Your task to perform on an android device: turn on location history Image 0: 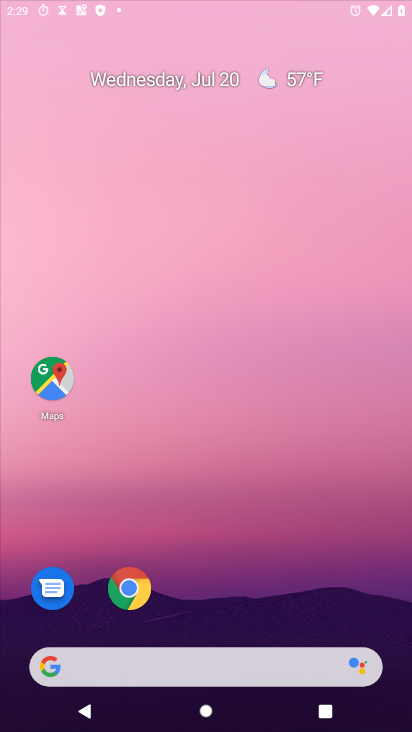
Step 0: press home button
Your task to perform on an android device: turn on location history Image 1: 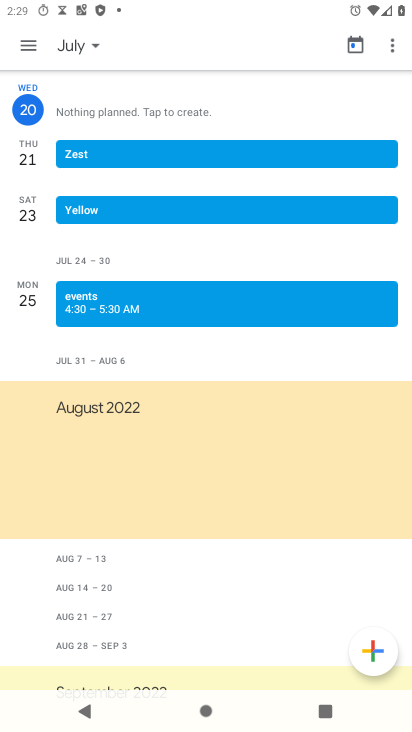
Step 1: drag from (278, 660) to (314, 2)
Your task to perform on an android device: turn on location history Image 2: 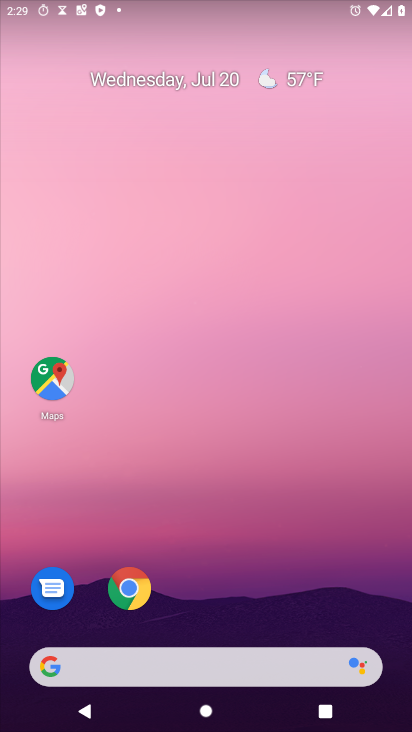
Step 2: drag from (216, 548) to (278, 0)
Your task to perform on an android device: turn on location history Image 3: 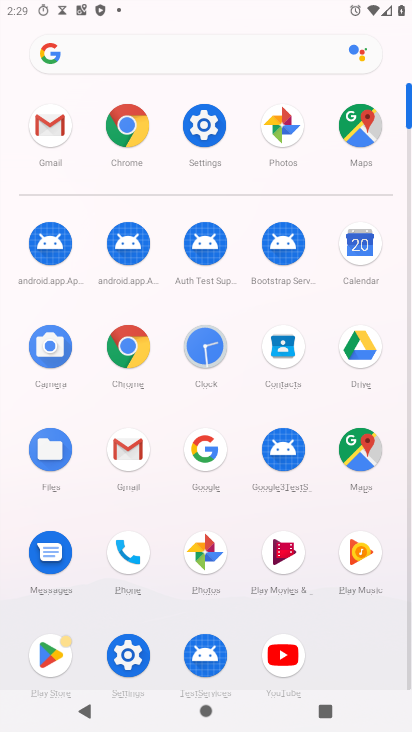
Step 3: click (204, 135)
Your task to perform on an android device: turn on location history Image 4: 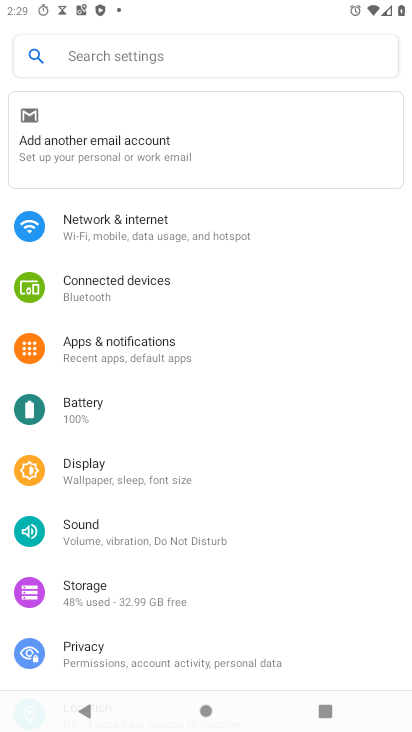
Step 4: drag from (109, 643) to (179, 188)
Your task to perform on an android device: turn on location history Image 5: 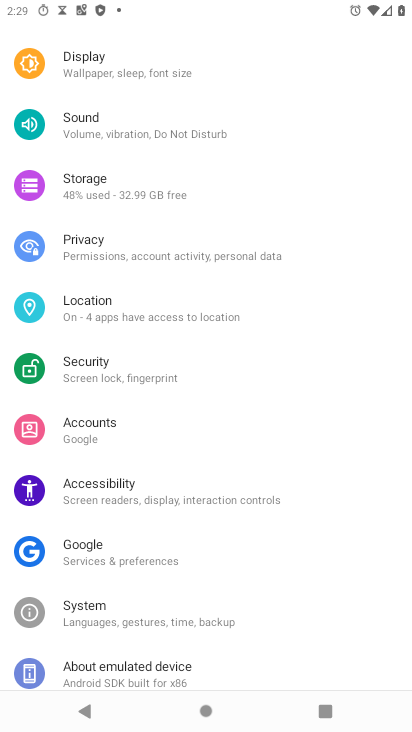
Step 5: click (156, 314)
Your task to perform on an android device: turn on location history Image 6: 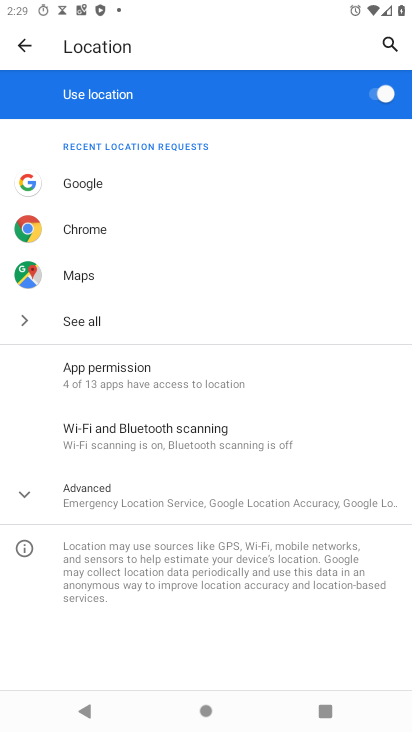
Step 6: click (156, 494)
Your task to perform on an android device: turn on location history Image 7: 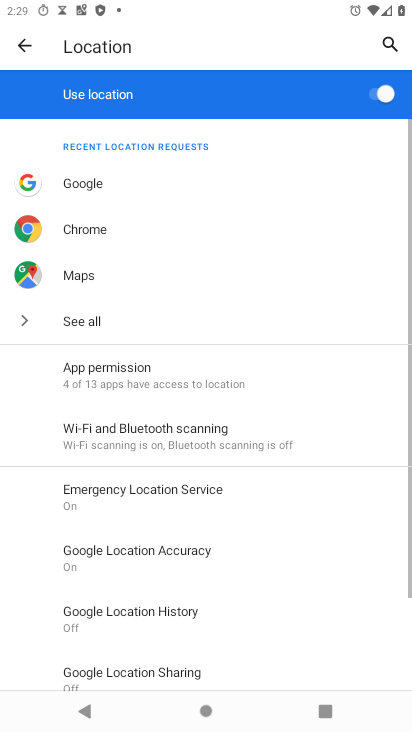
Step 7: click (197, 620)
Your task to perform on an android device: turn on location history Image 8: 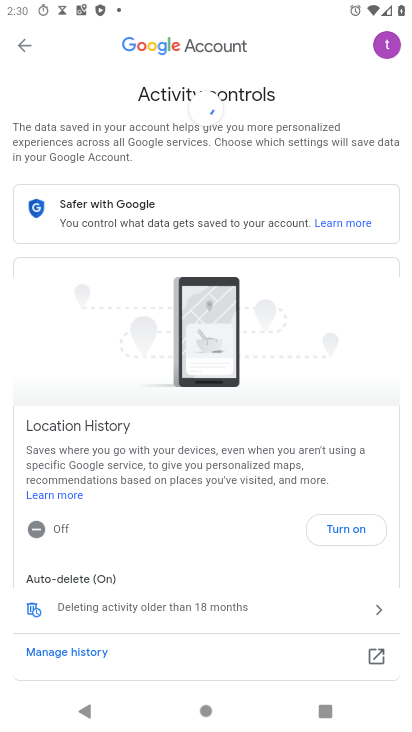
Step 8: click (349, 526)
Your task to perform on an android device: turn on location history Image 9: 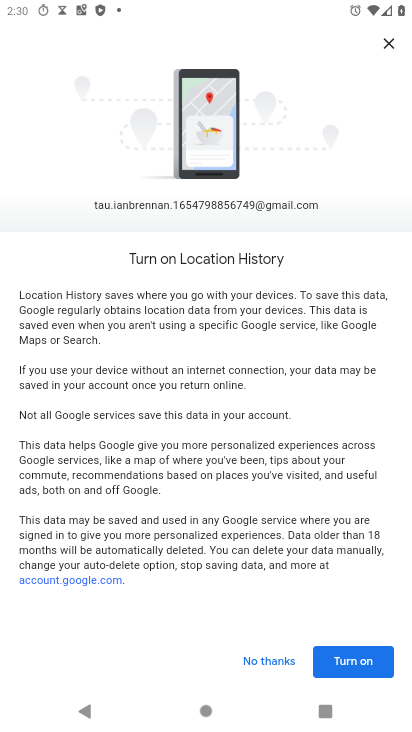
Step 9: click (341, 661)
Your task to perform on an android device: turn on location history Image 10: 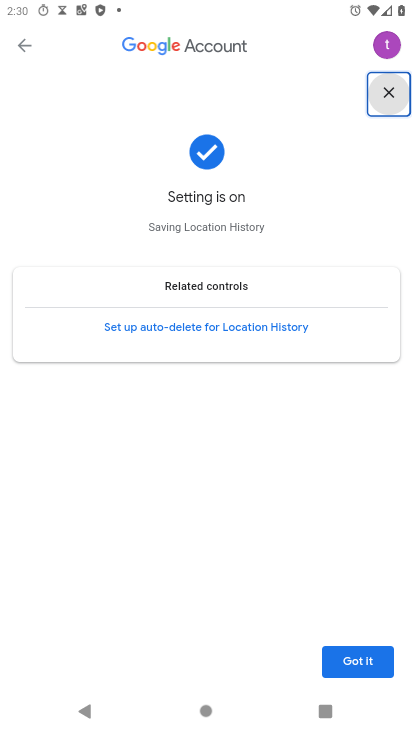
Step 10: task complete